Your task to perform on an android device: Find coffee shops on Maps Image 0: 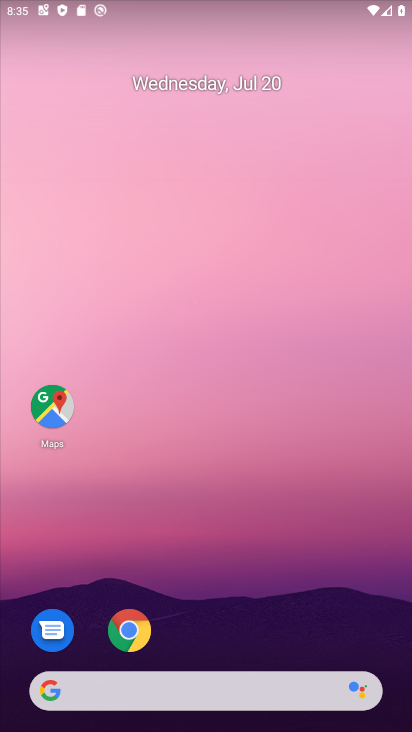
Step 0: click (65, 408)
Your task to perform on an android device: Find coffee shops on Maps Image 1: 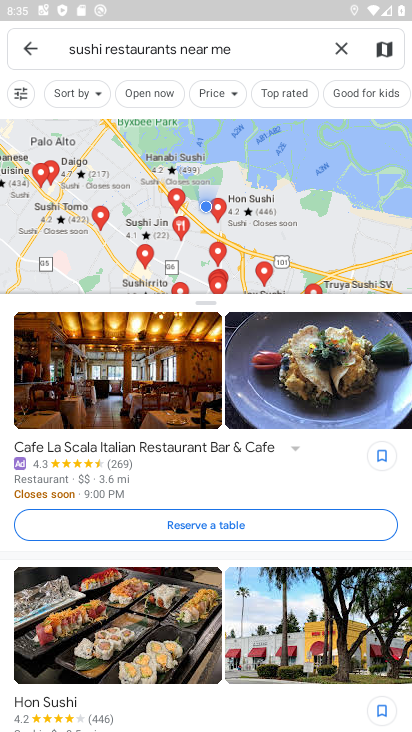
Step 1: click (344, 42)
Your task to perform on an android device: Find coffee shops on Maps Image 2: 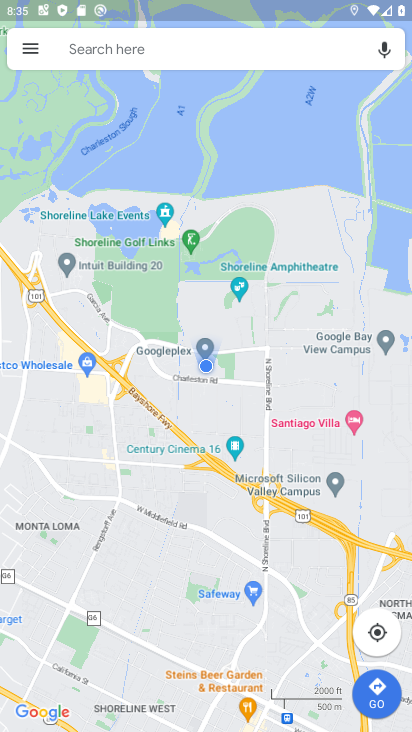
Step 2: click (84, 43)
Your task to perform on an android device: Find coffee shops on Maps Image 3: 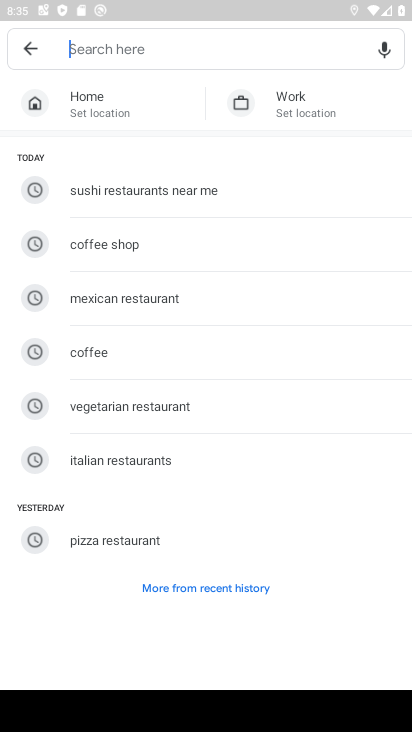
Step 3: type " coffee shops"
Your task to perform on an android device: Find coffee shops on Maps Image 4: 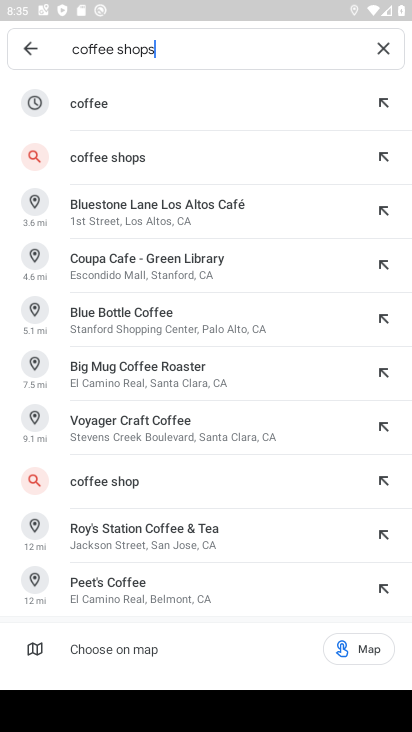
Step 4: click (81, 162)
Your task to perform on an android device: Find coffee shops on Maps Image 5: 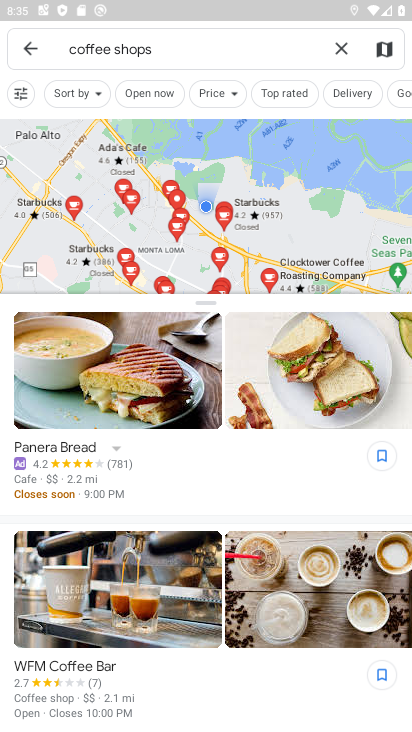
Step 5: task complete